Your task to perform on an android device: Search for energizer triple a on walmart.com, select the first entry, and add it to the cart. Image 0: 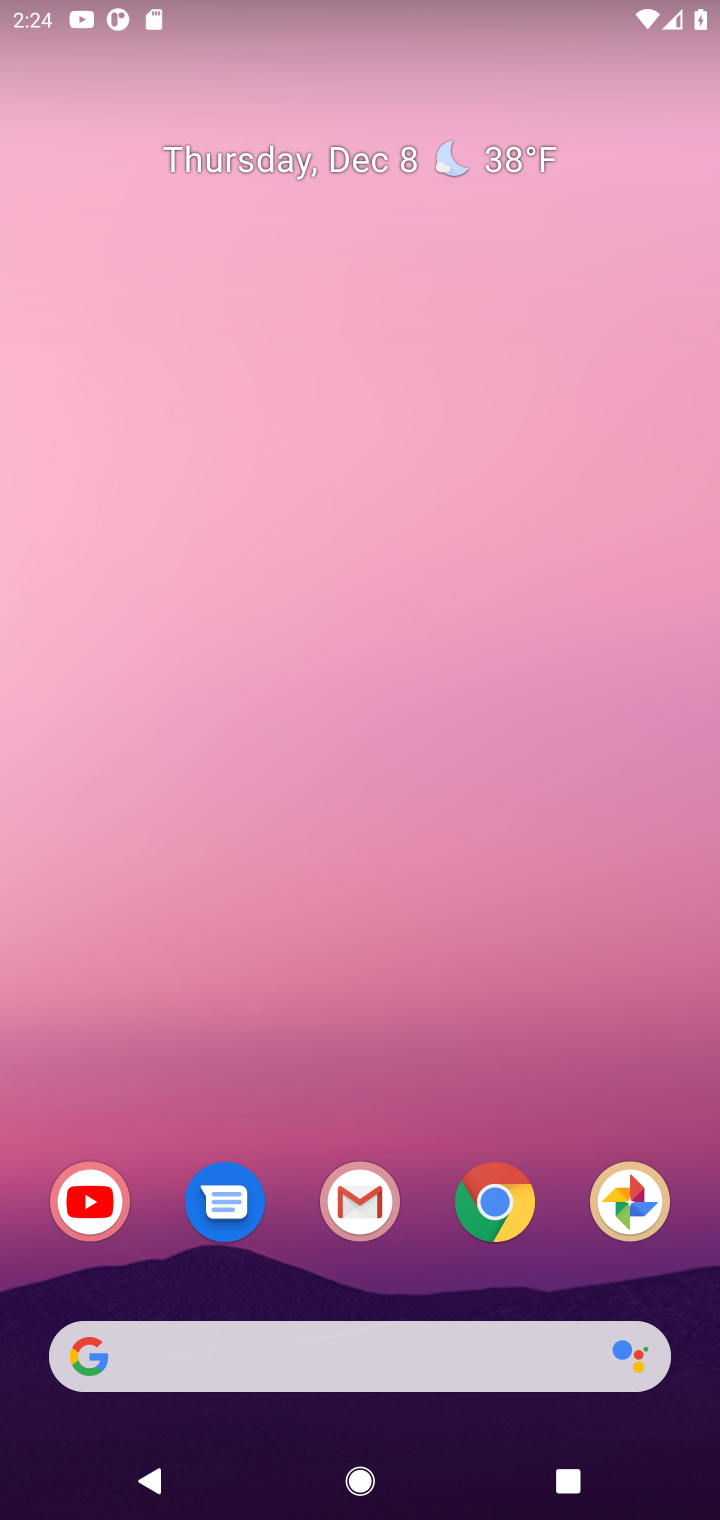
Step 0: click (486, 1192)
Your task to perform on an android device: Search for energizer triple a on walmart.com, select the first entry, and add it to the cart. Image 1: 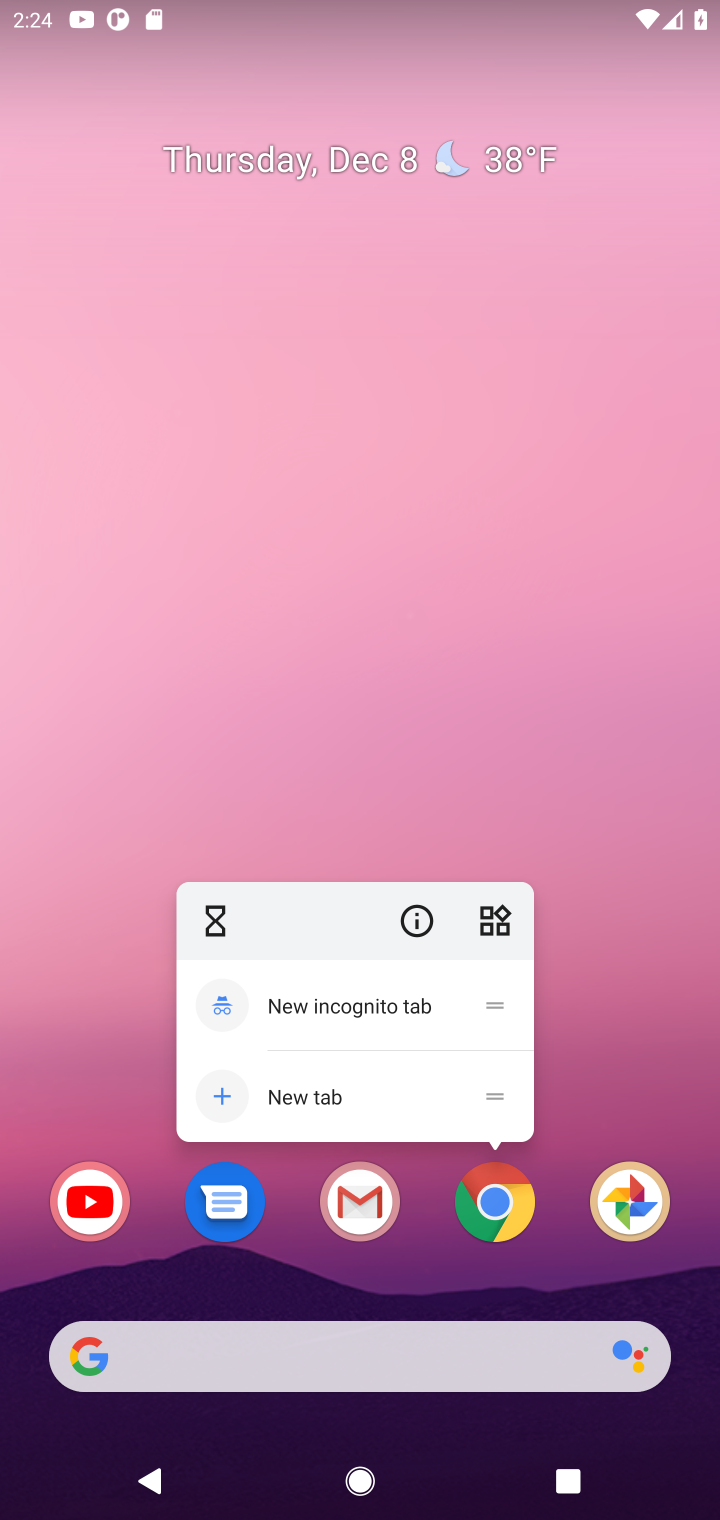
Step 1: click (486, 1192)
Your task to perform on an android device: Search for energizer triple a on walmart.com, select the first entry, and add it to the cart. Image 2: 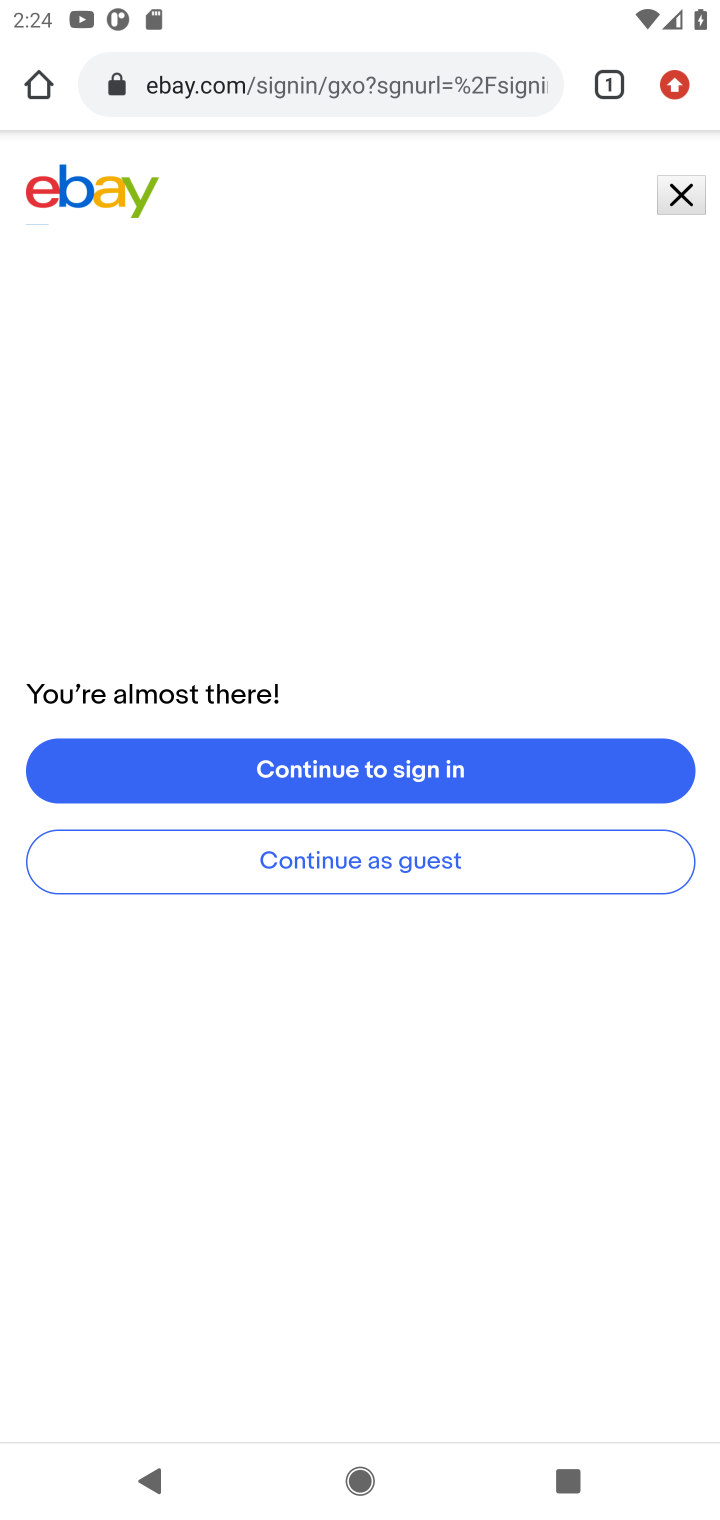
Step 2: click (426, 91)
Your task to perform on an android device: Search for energizer triple a on walmart.com, select the first entry, and add it to the cart. Image 3: 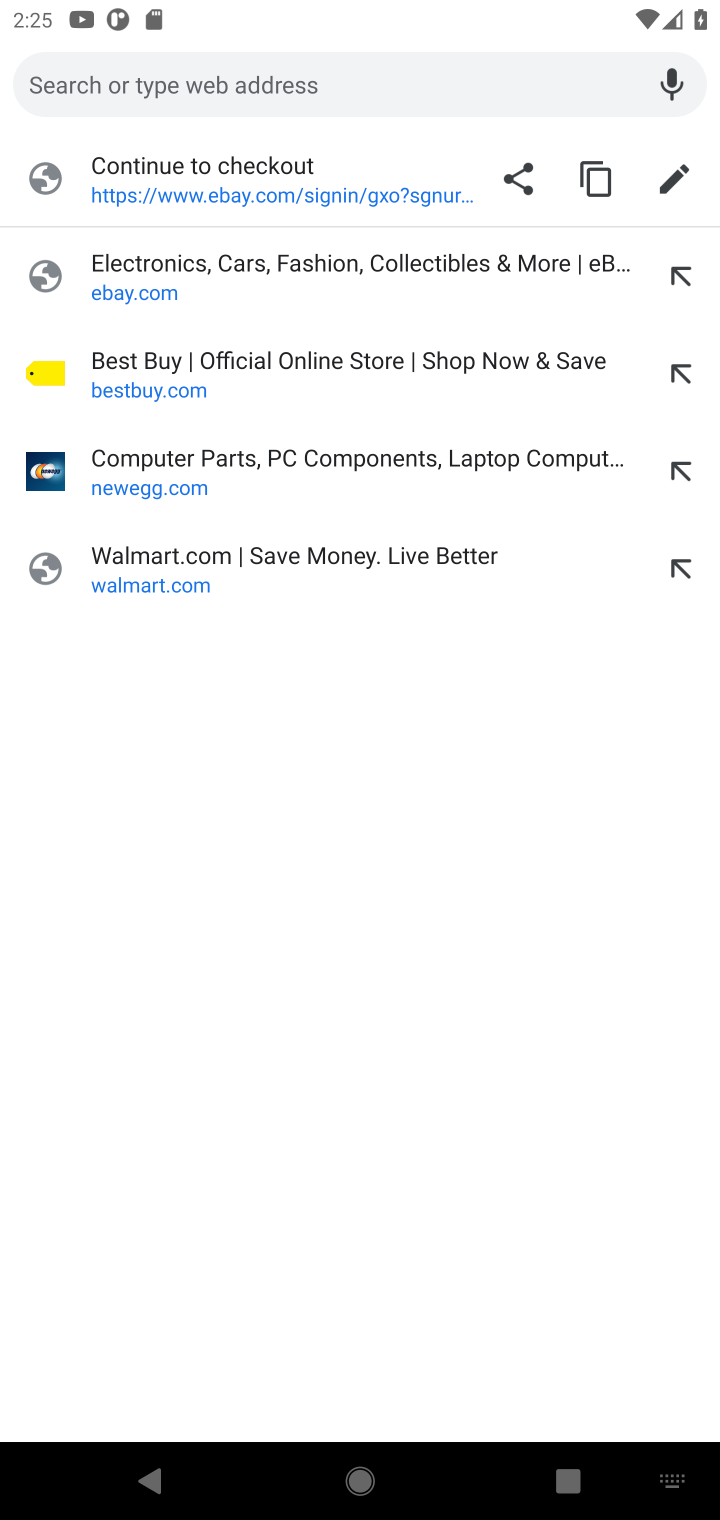
Step 3: click (200, 559)
Your task to perform on an android device: Search for energizer triple a on walmart.com, select the first entry, and add it to the cart. Image 4: 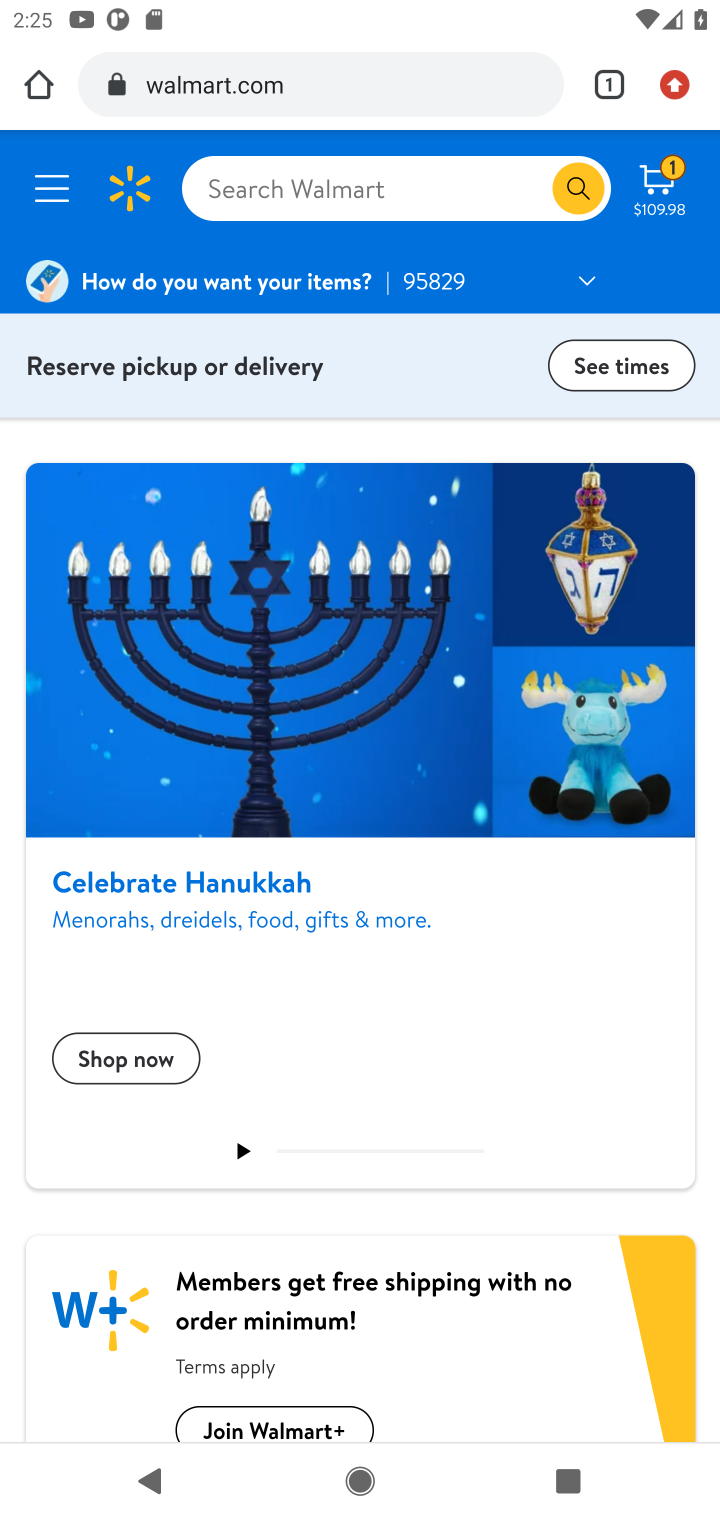
Step 4: click (473, 178)
Your task to perform on an android device: Search for energizer triple a on walmart.com, select the first entry, and add it to the cart. Image 5: 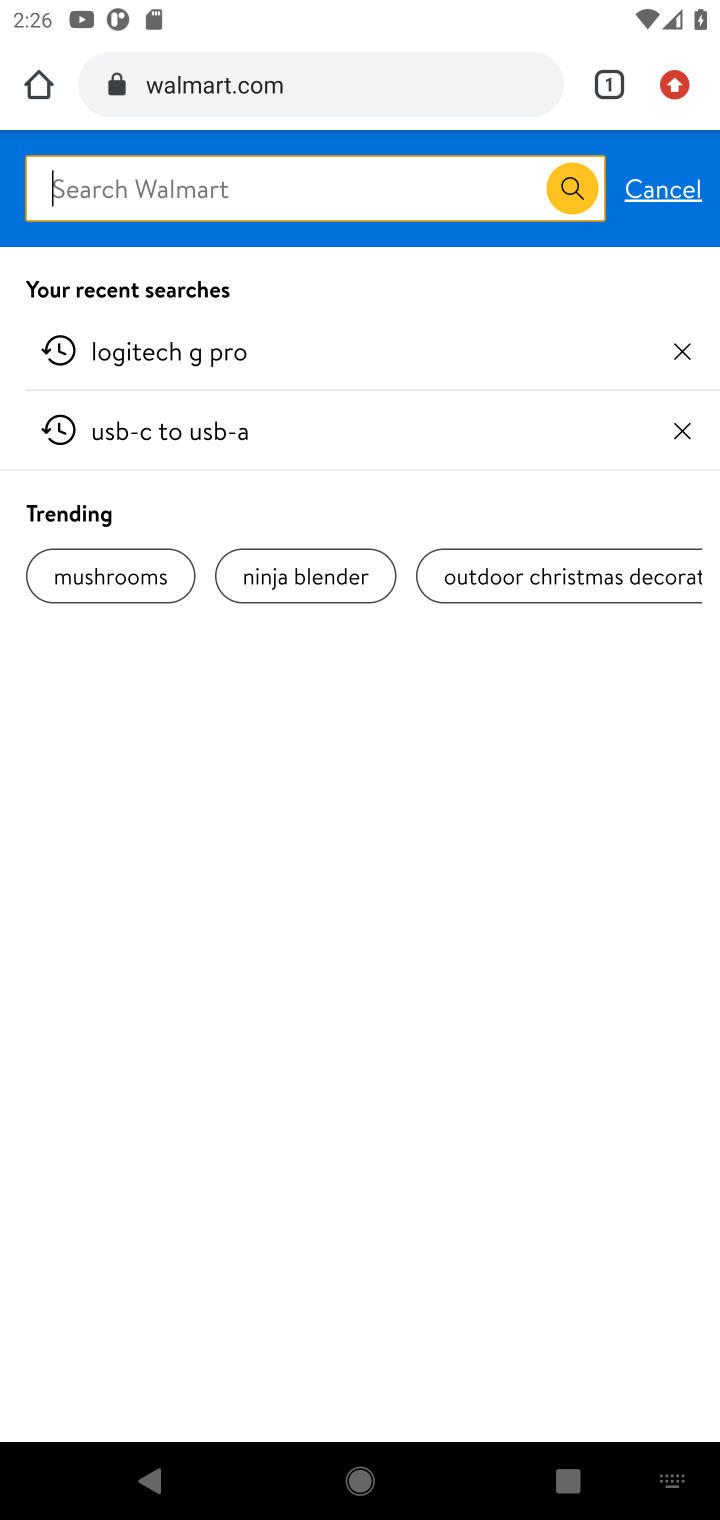
Step 5: type "energizer triple a"
Your task to perform on an android device: Search for energizer triple a on walmart.com, select the first entry, and add it to the cart. Image 6: 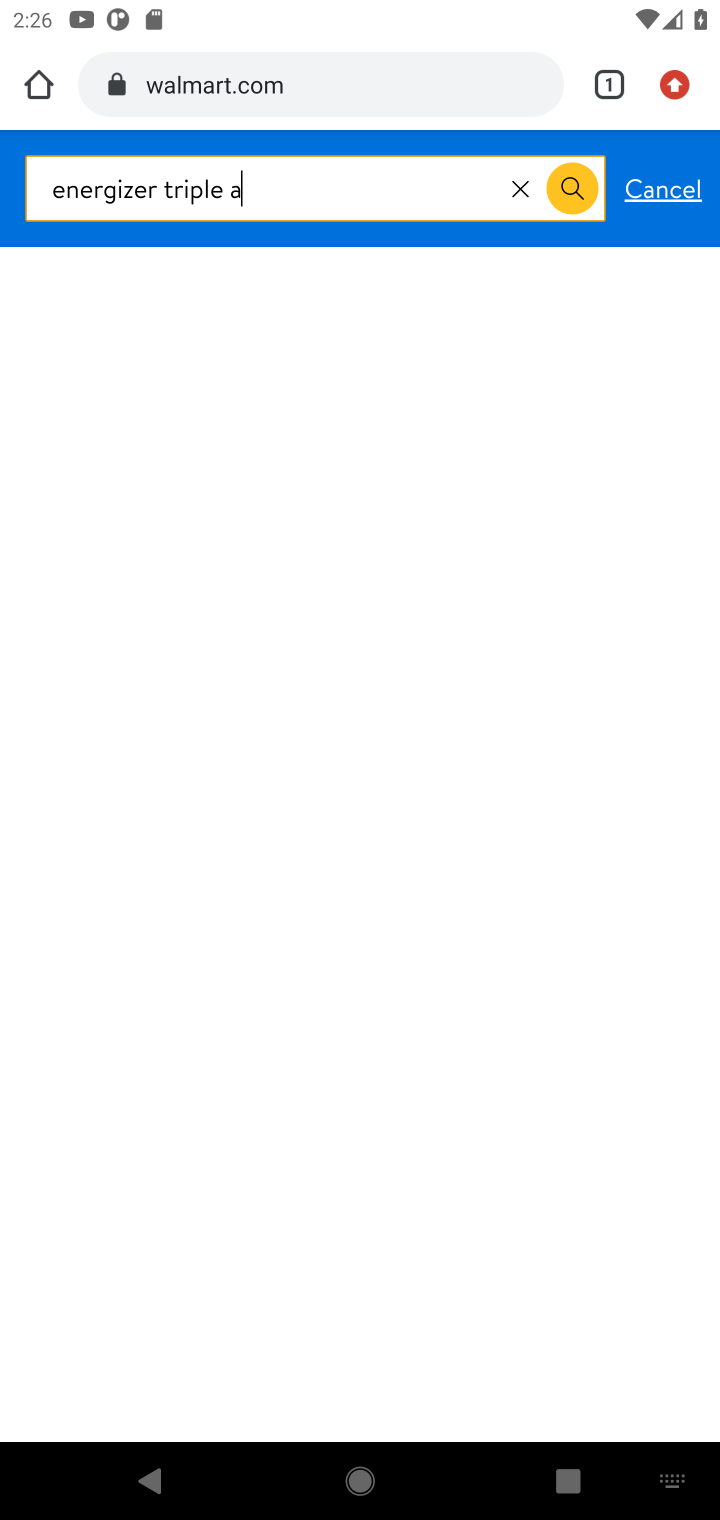
Step 6: press enter
Your task to perform on an android device: Search for energizer triple a on walmart.com, select the first entry, and add it to the cart. Image 7: 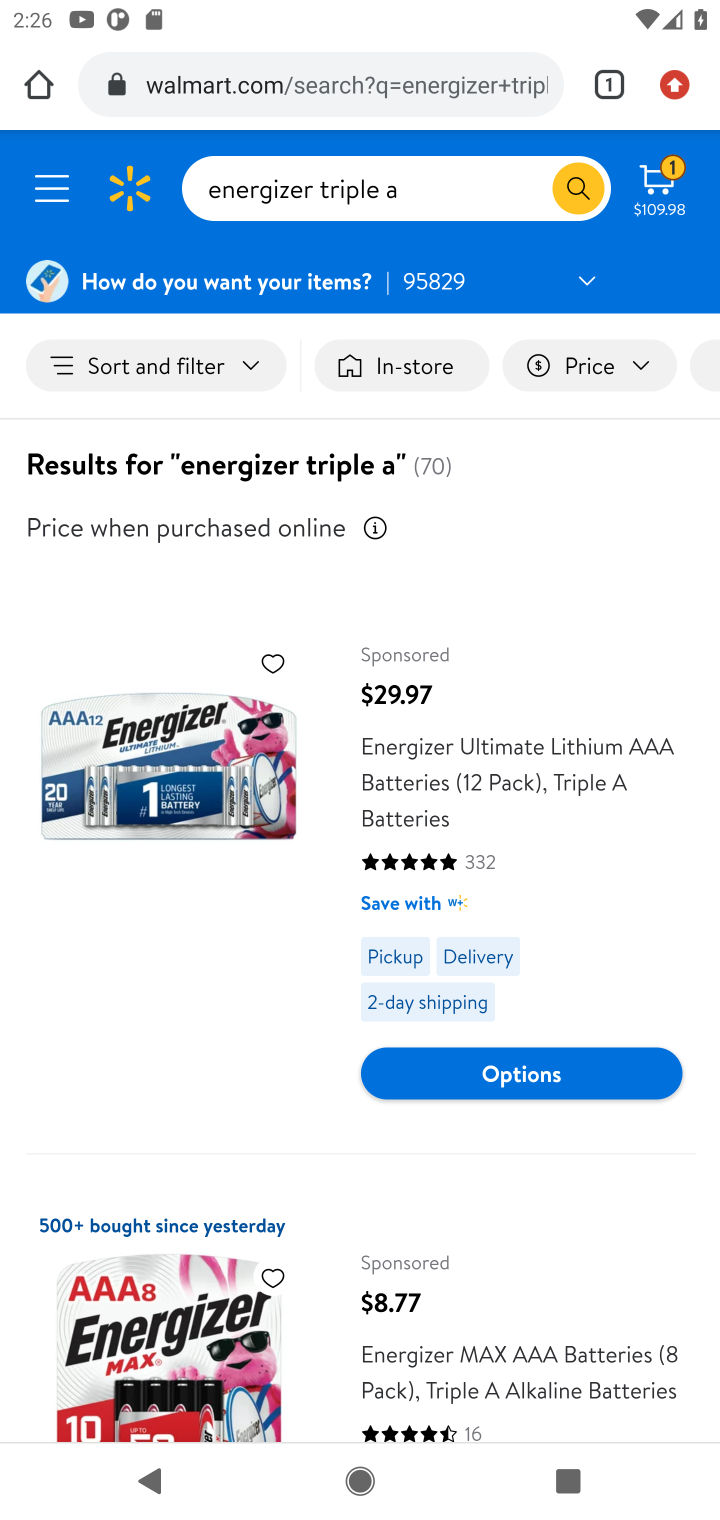
Step 7: click (155, 789)
Your task to perform on an android device: Search for energizer triple a on walmart.com, select the first entry, and add it to the cart. Image 8: 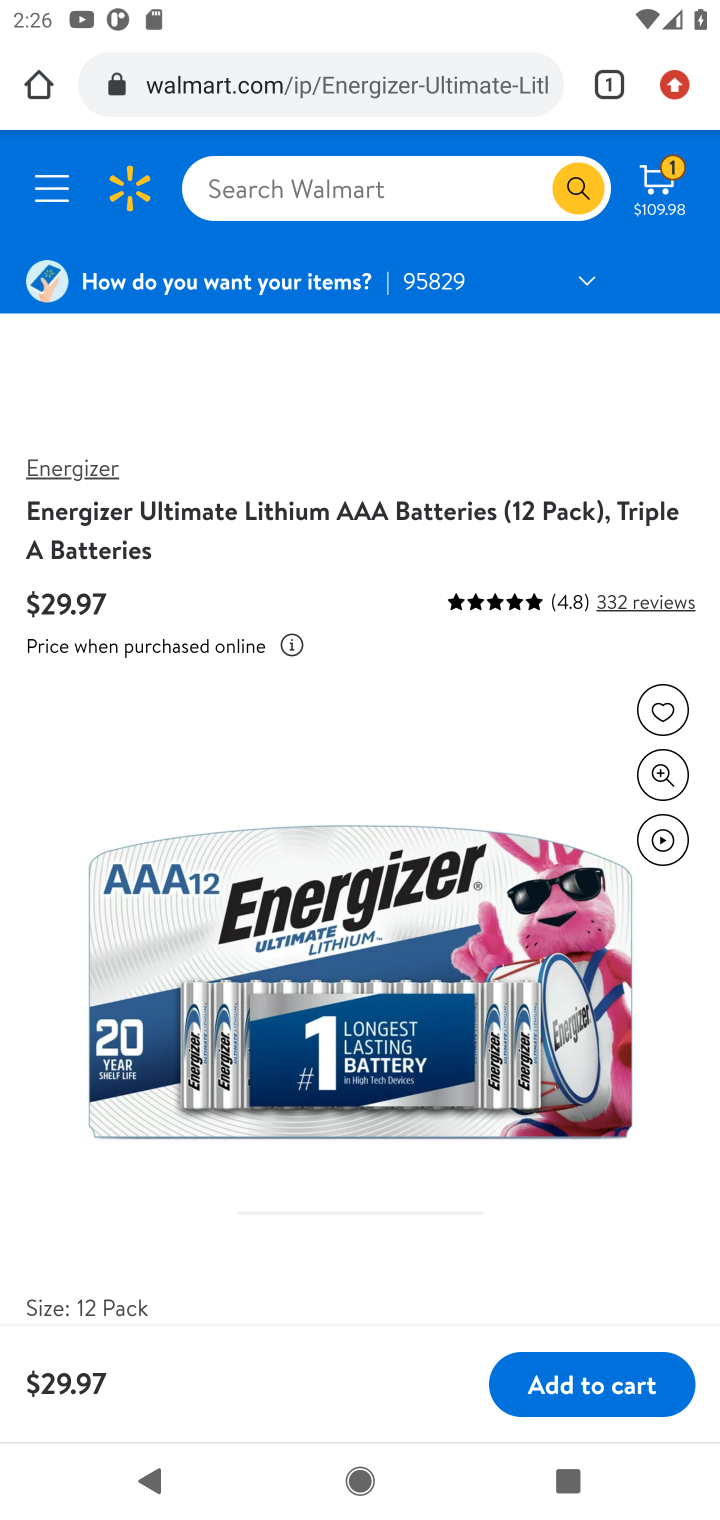
Step 8: click (608, 1392)
Your task to perform on an android device: Search for energizer triple a on walmart.com, select the first entry, and add it to the cart. Image 9: 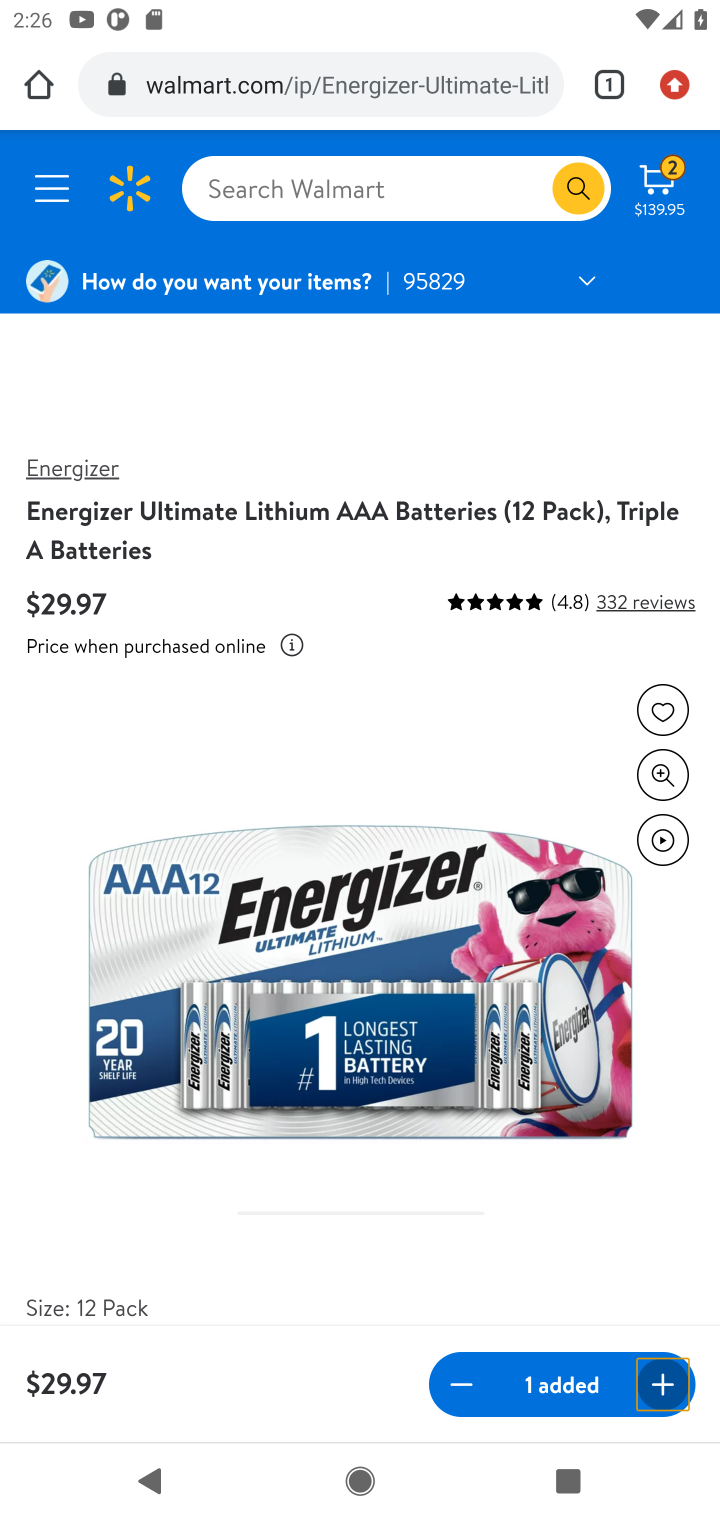
Step 9: click (670, 190)
Your task to perform on an android device: Search for energizer triple a on walmart.com, select the first entry, and add it to the cart. Image 10: 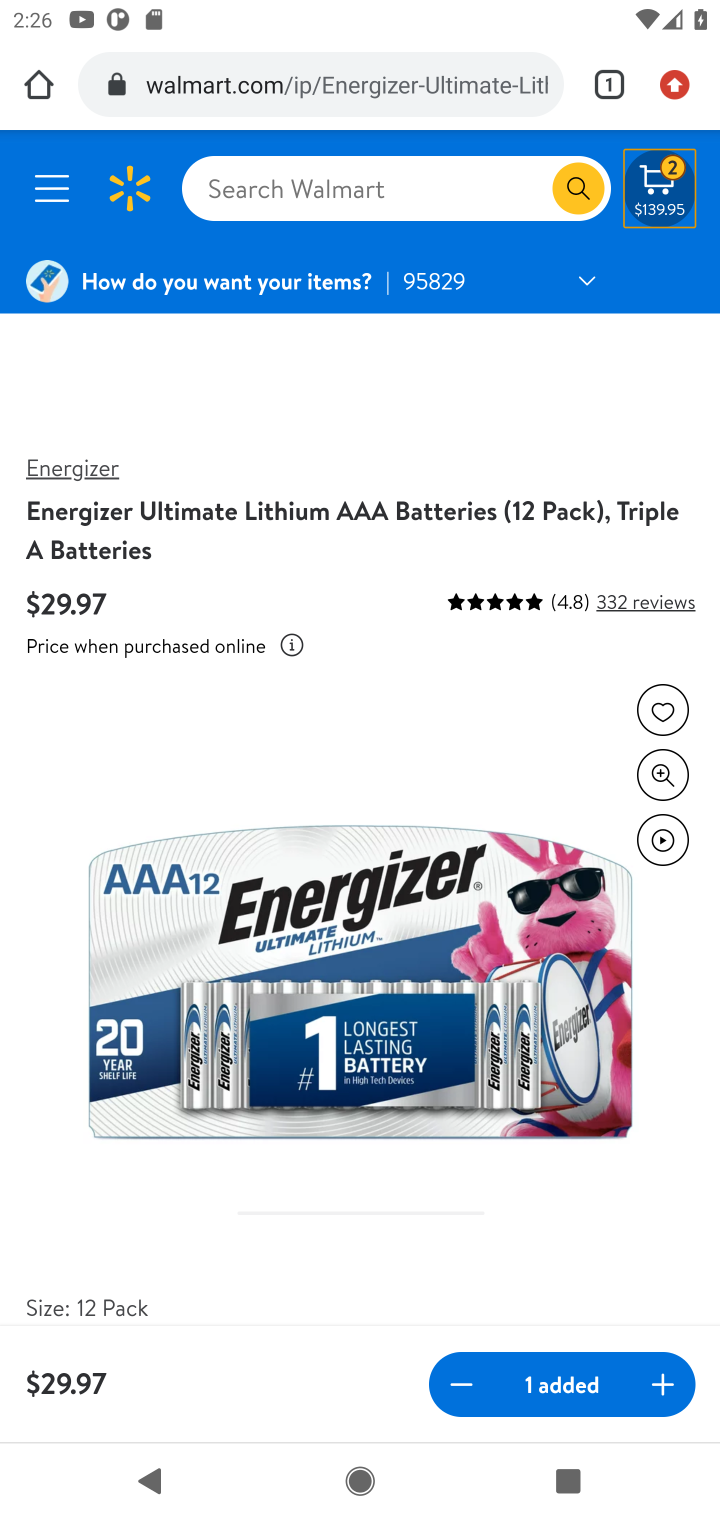
Step 10: click (668, 190)
Your task to perform on an android device: Search for energizer triple a on walmart.com, select the first entry, and add it to the cart. Image 11: 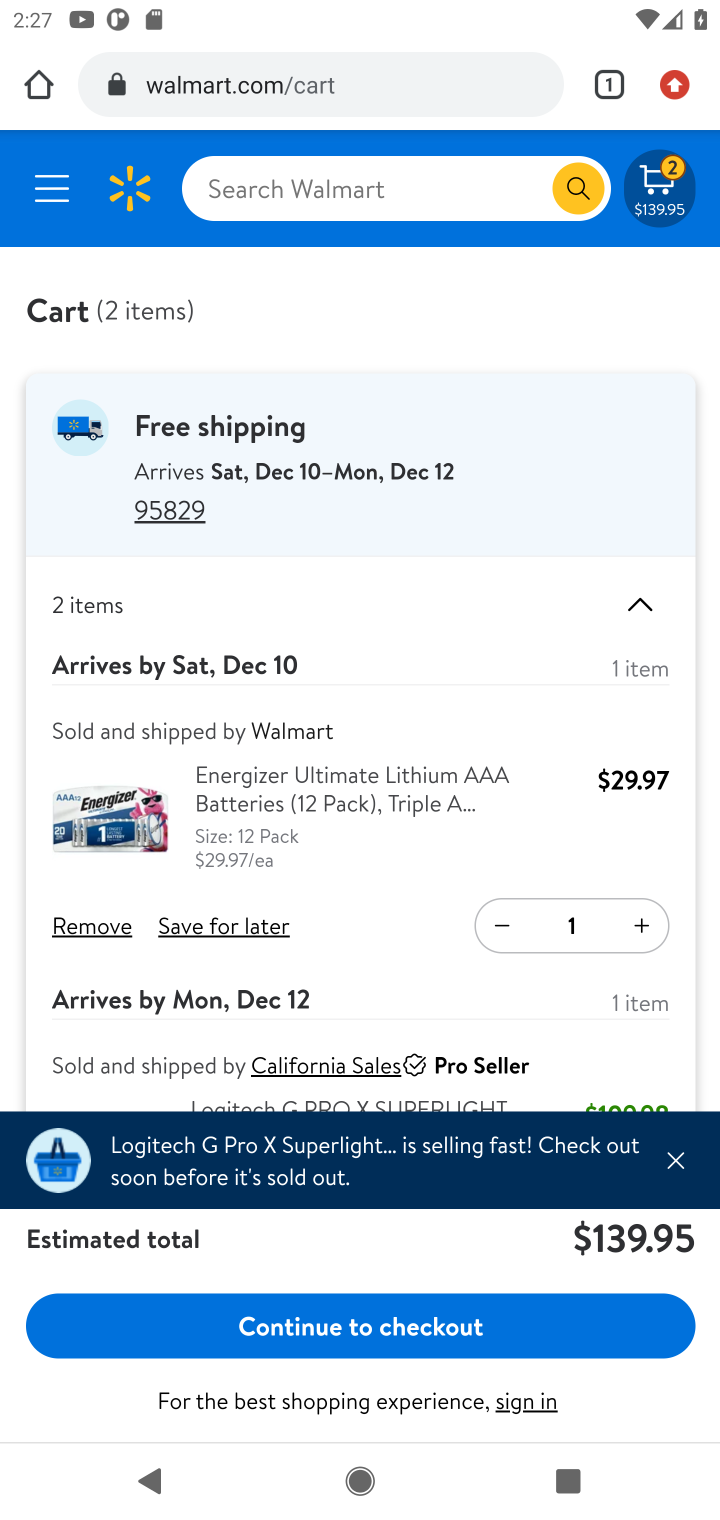
Step 11: task complete